Your task to perform on an android device: turn on location history Image 0: 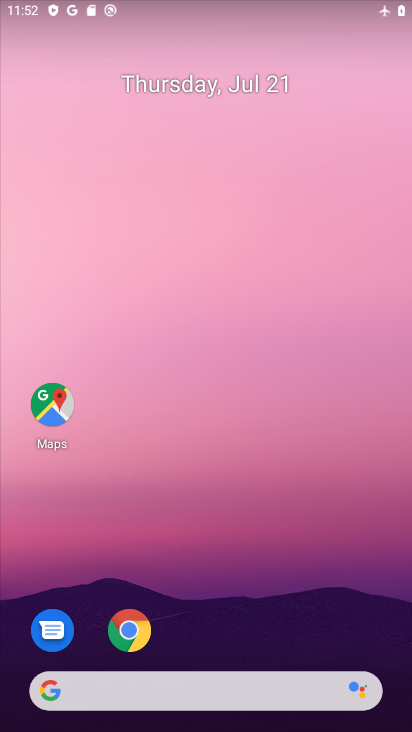
Step 0: drag from (214, 663) to (151, 86)
Your task to perform on an android device: turn on location history Image 1: 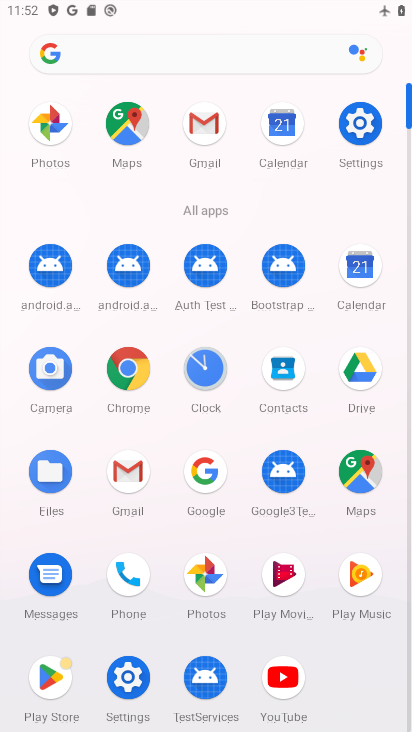
Step 1: click (347, 133)
Your task to perform on an android device: turn on location history Image 2: 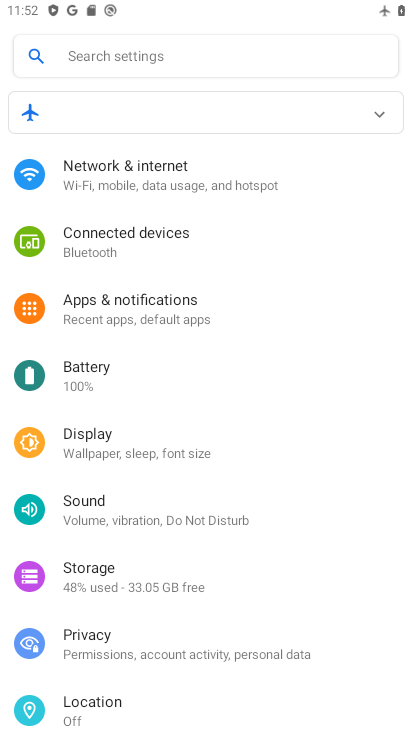
Step 2: click (120, 703)
Your task to perform on an android device: turn on location history Image 3: 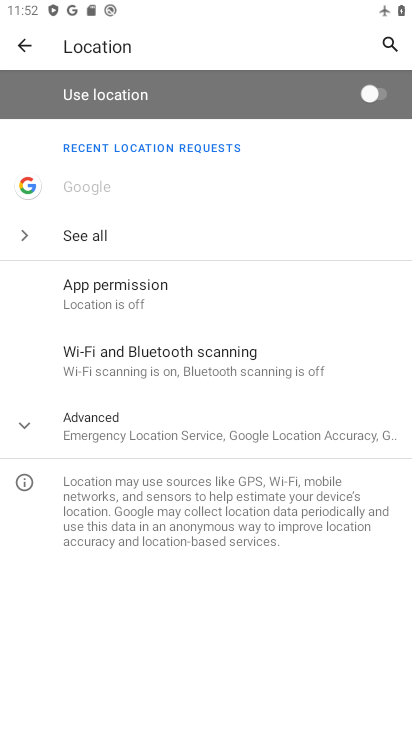
Step 3: click (92, 415)
Your task to perform on an android device: turn on location history Image 4: 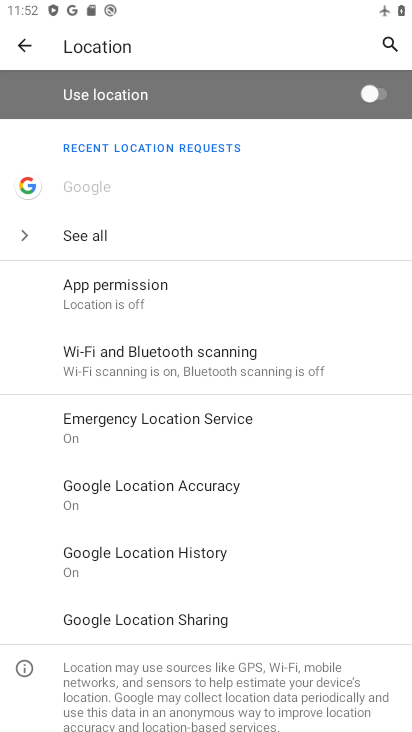
Step 4: click (194, 547)
Your task to perform on an android device: turn on location history Image 5: 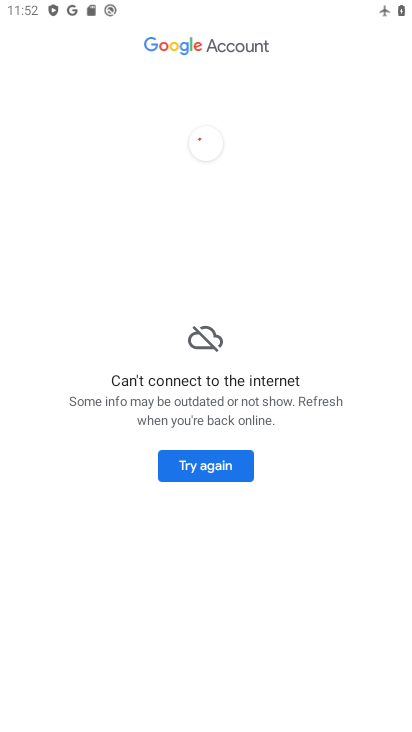
Step 5: click (189, 472)
Your task to perform on an android device: turn on location history Image 6: 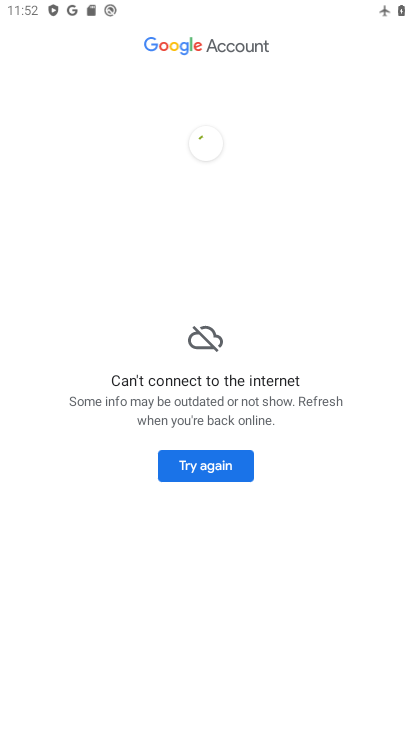
Step 6: task complete